Your task to perform on an android device: Go to calendar. Show me events next week Image 0: 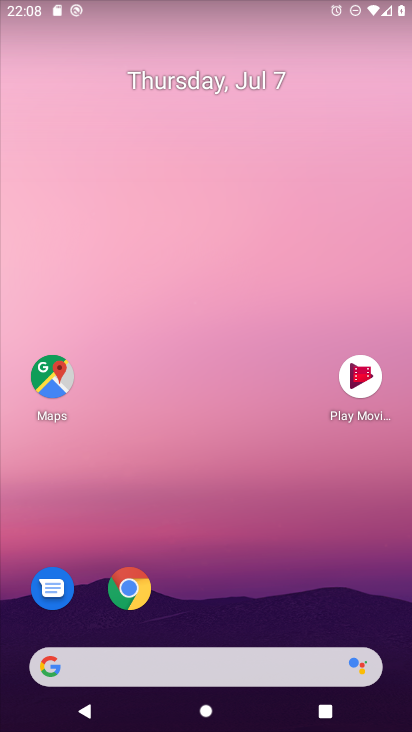
Step 0: drag from (231, 612) to (235, 441)
Your task to perform on an android device: Go to calendar. Show me events next week Image 1: 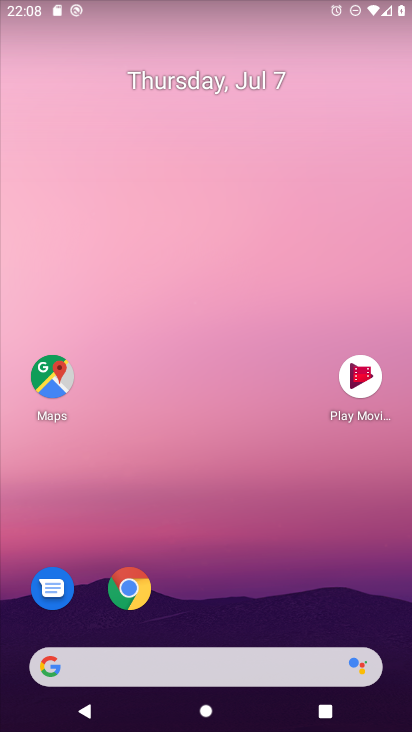
Step 1: drag from (216, 606) to (220, 442)
Your task to perform on an android device: Go to calendar. Show me events next week Image 2: 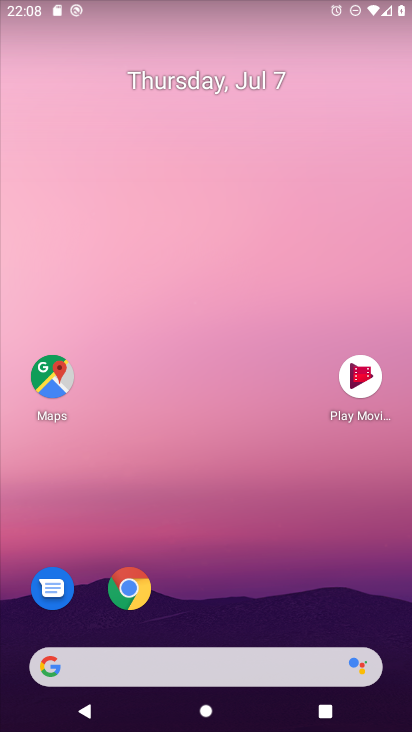
Step 2: drag from (268, 618) to (275, 375)
Your task to perform on an android device: Go to calendar. Show me events next week Image 3: 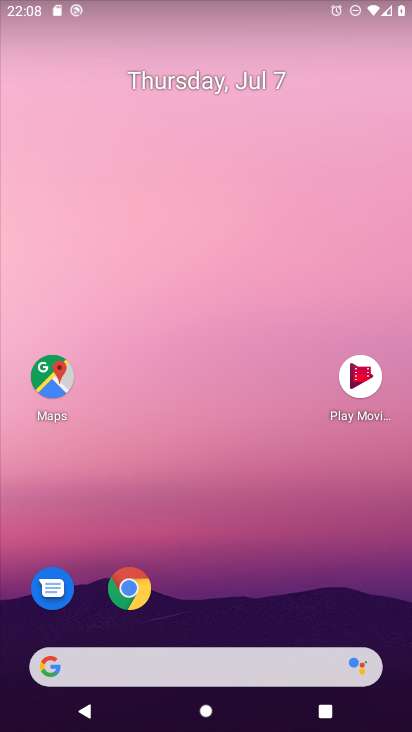
Step 3: drag from (206, 645) to (216, 371)
Your task to perform on an android device: Go to calendar. Show me events next week Image 4: 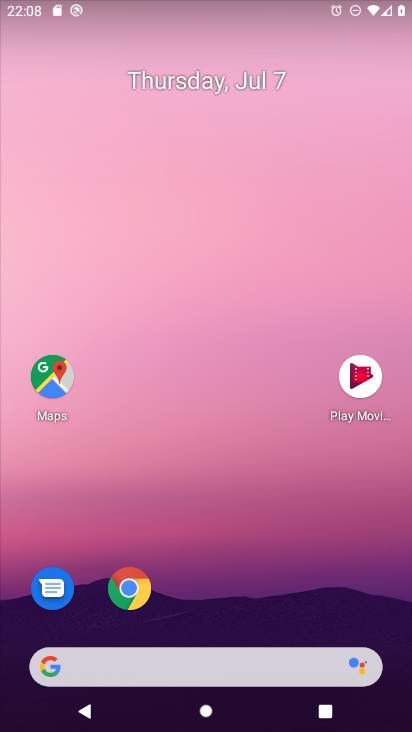
Step 4: drag from (223, 598) to (216, 304)
Your task to perform on an android device: Go to calendar. Show me events next week Image 5: 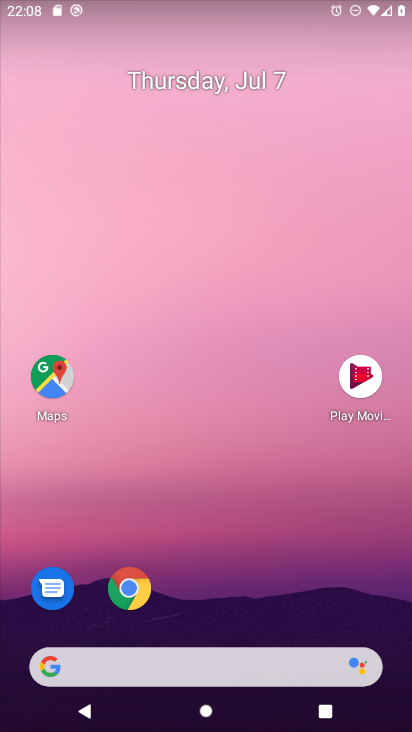
Step 5: drag from (221, 639) to (244, 137)
Your task to perform on an android device: Go to calendar. Show me events next week Image 6: 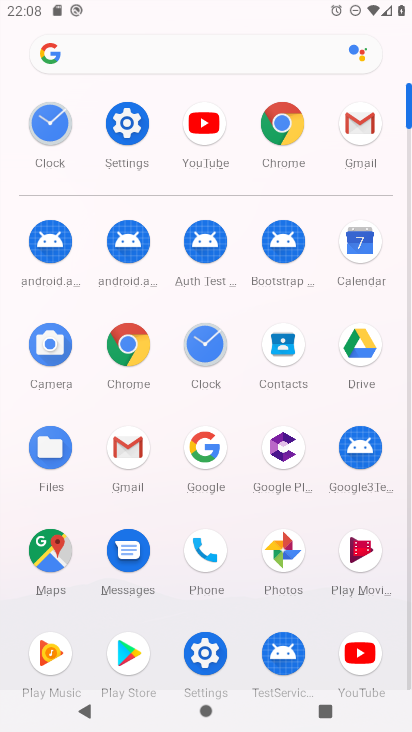
Step 6: click (363, 243)
Your task to perform on an android device: Go to calendar. Show me events next week Image 7: 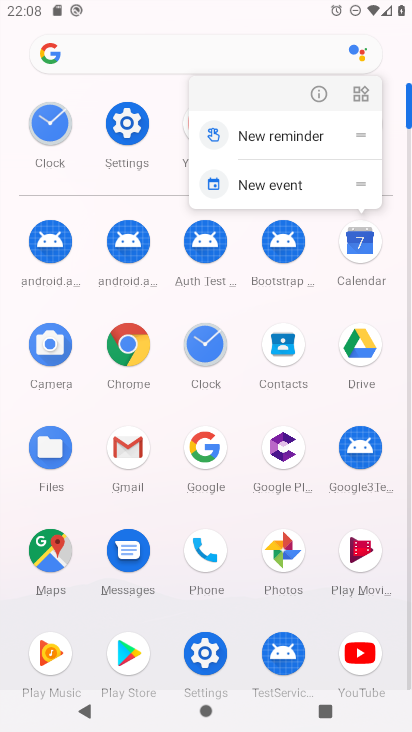
Step 7: click (363, 243)
Your task to perform on an android device: Go to calendar. Show me events next week Image 8: 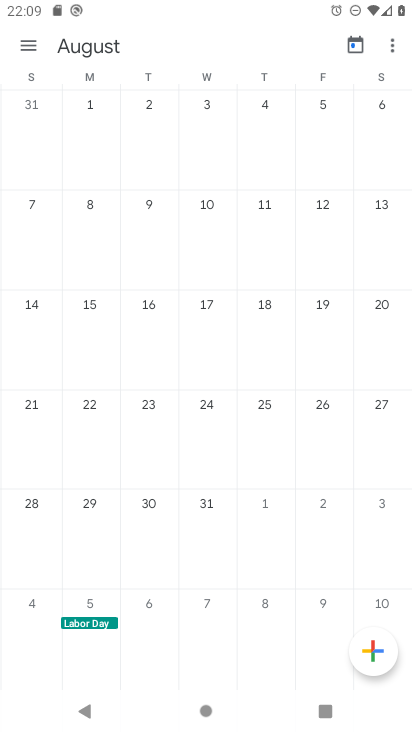
Step 8: task complete